Your task to perform on an android device: change alarm snooze length Image 0: 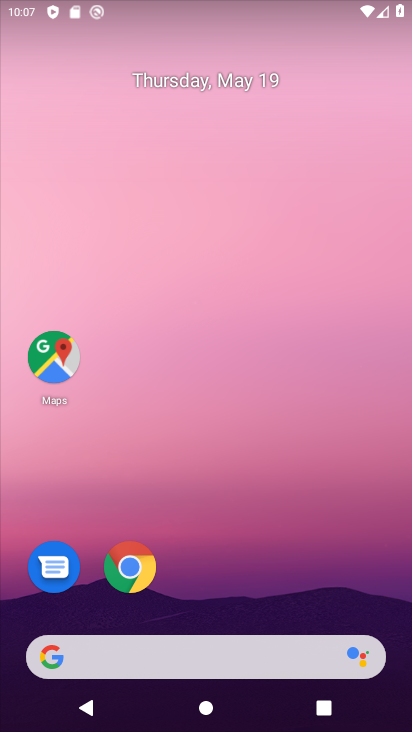
Step 0: drag from (390, 620) to (371, 155)
Your task to perform on an android device: change alarm snooze length Image 1: 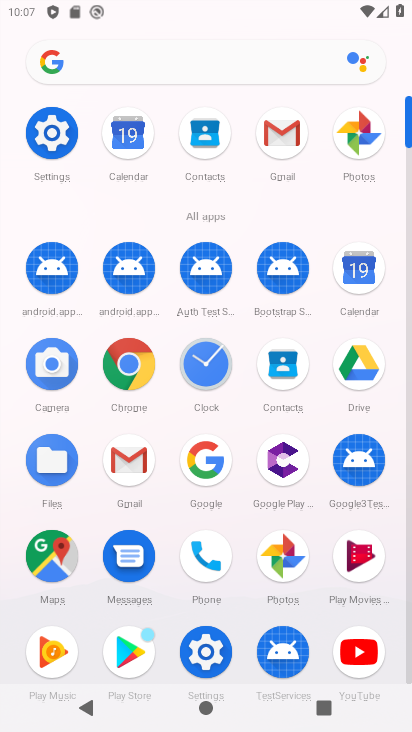
Step 1: click (410, 673)
Your task to perform on an android device: change alarm snooze length Image 2: 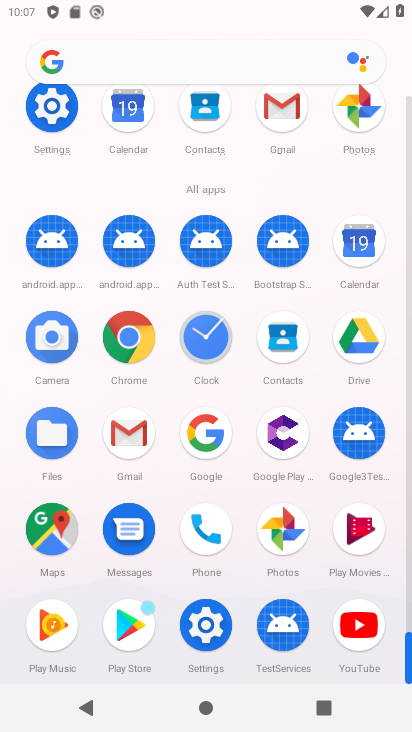
Step 2: click (205, 338)
Your task to perform on an android device: change alarm snooze length Image 3: 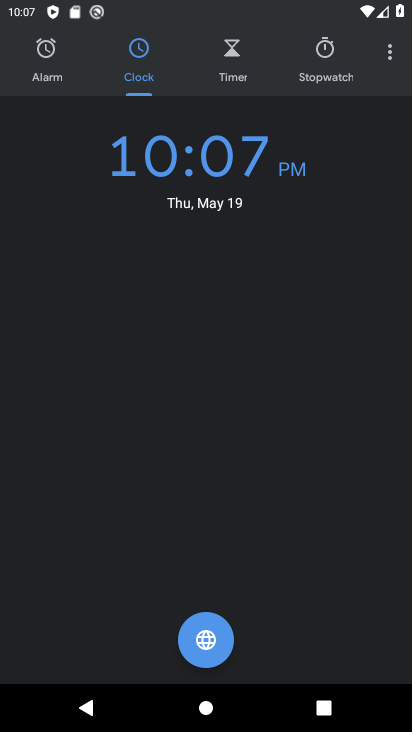
Step 3: click (390, 64)
Your task to perform on an android device: change alarm snooze length Image 4: 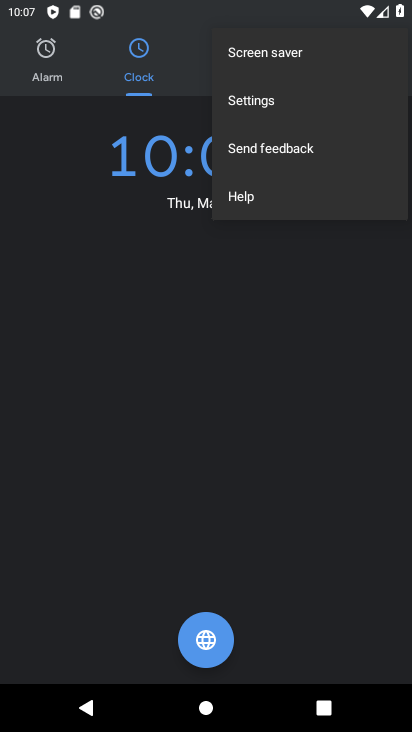
Step 4: click (250, 103)
Your task to perform on an android device: change alarm snooze length Image 5: 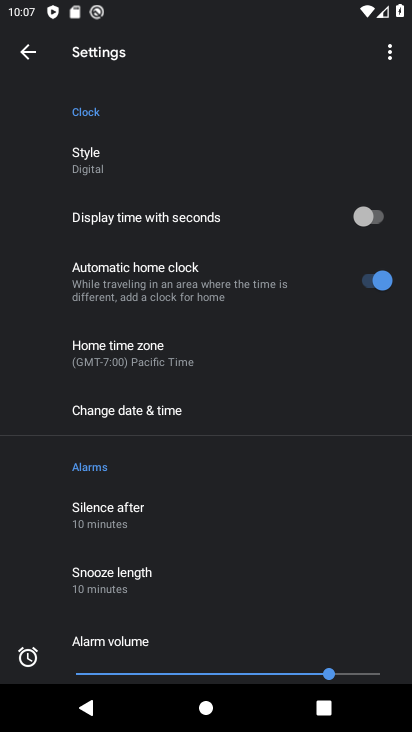
Step 5: click (120, 563)
Your task to perform on an android device: change alarm snooze length Image 6: 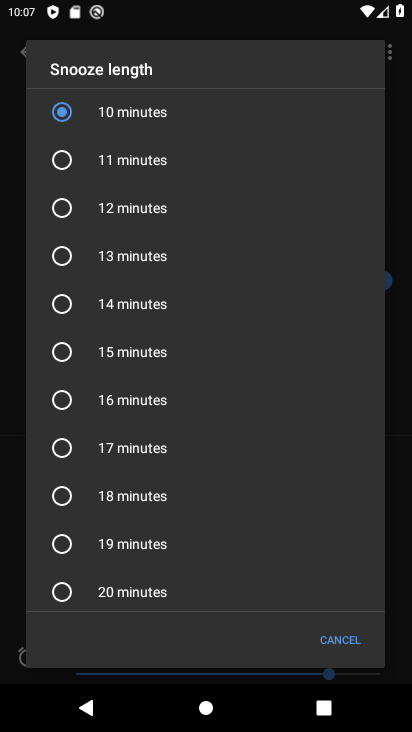
Step 6: click (63, 355)
Your task to perform on an android device: change alarm snooze length Image 7: 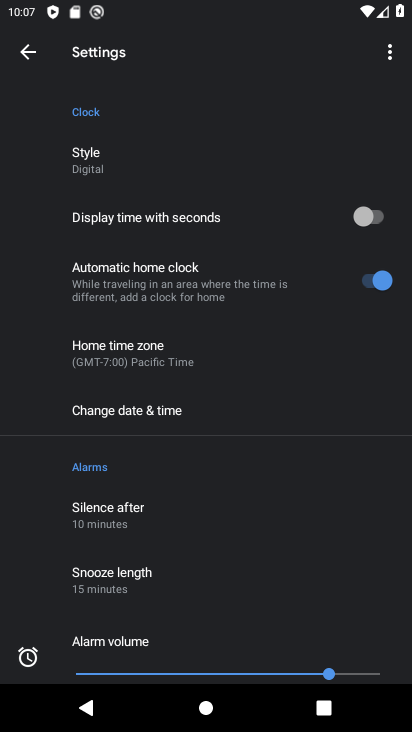
Step 7: task complete